Your task to perform on an android device: See recent photos Image 0: 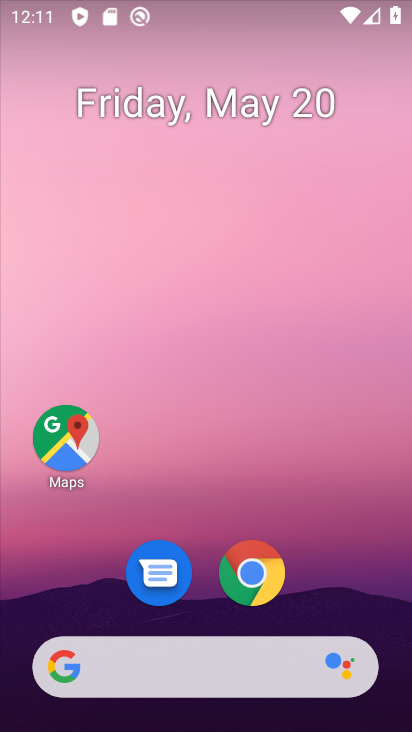
Step 0: drag from (326, 567) to (244, 27)
Your task to perform on an android device: See recent photos Image 1: 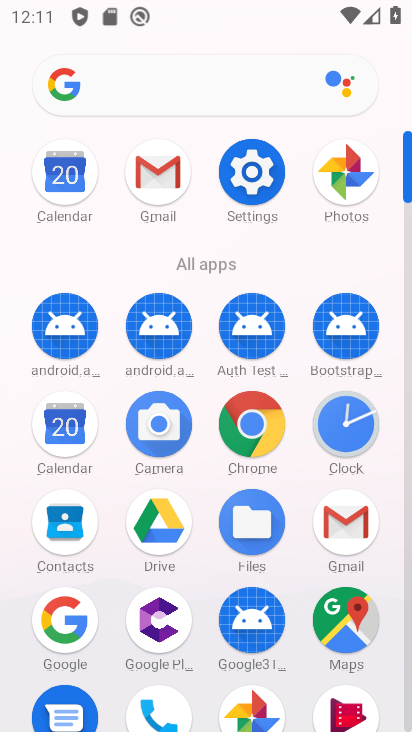
Step 1: click (341, 160)
Your task to perform on an android device: See recent photos Image 2: 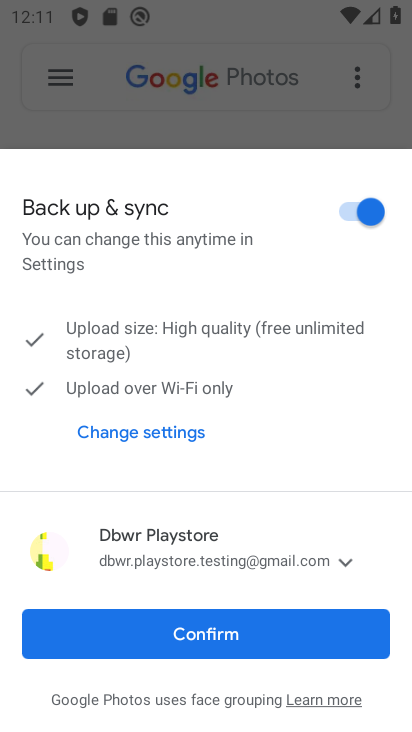
Step 2: click (210, 636)
Your task to perform on an android device: See recent photos Image 3: 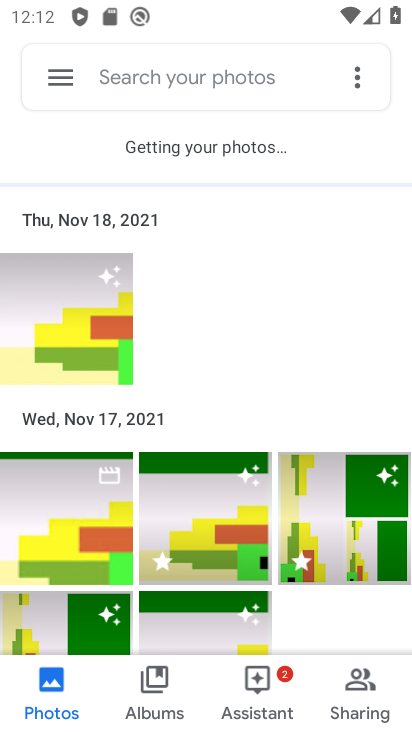
Step 3: task complete